Your task to perform on an android device: Open Google Image 0: 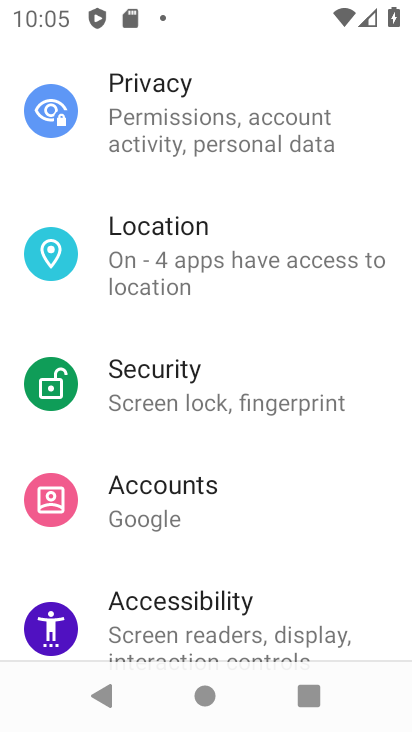
Step 0: press home button
Your task to perform on an android device: Open Google Image 1: 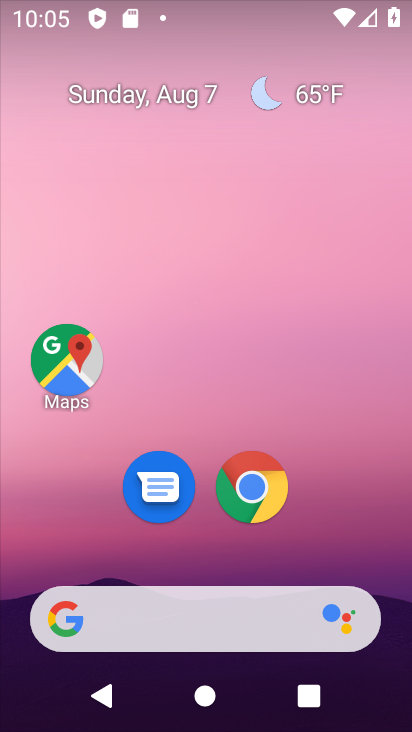
Step 1: drag from (367, 690) to (178, 52)
Your task to perform on an android device: Open Google Image 2: 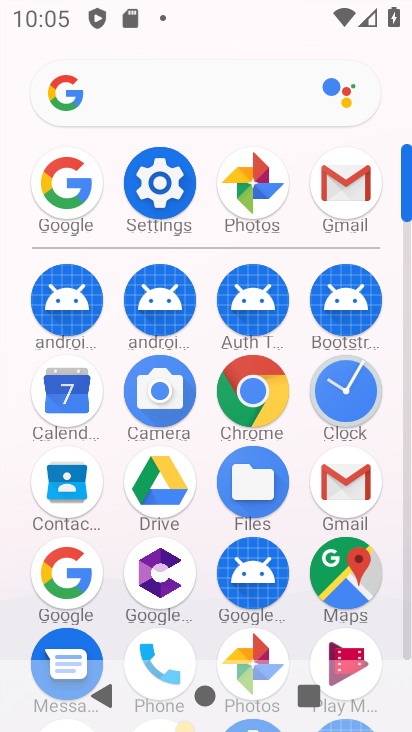
Step 2: click (68, 591)
Your task to perform on an android device: Open Google Image 3: 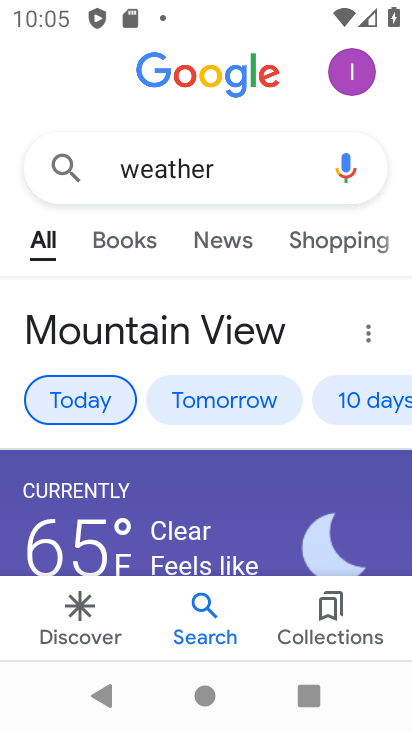
Step 3: task complete